Your task to perform on an android device: Go to battery settings Image 0: 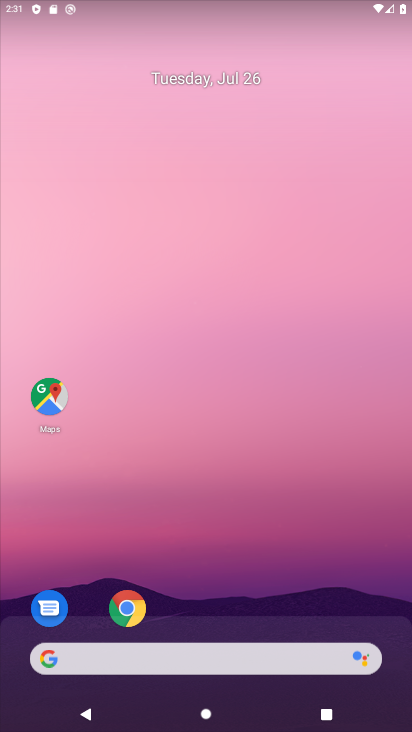
Step 0: drag from (222, 629) to (397, 97)
Your task to perform on an android device: Go to battery settings Image 1: 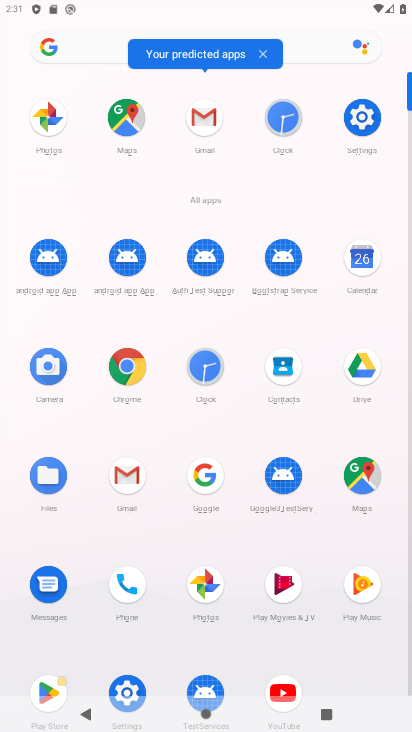
Step 1: click (129, 689)
Your task to perform on an android device: Go to battery settings Image 2: 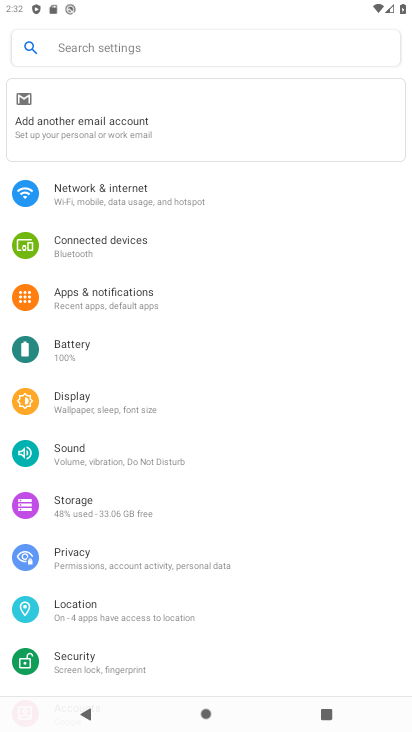
Step 2: click (106, 349)
Your task to perform on an android device: Go to battery settings Image 3: 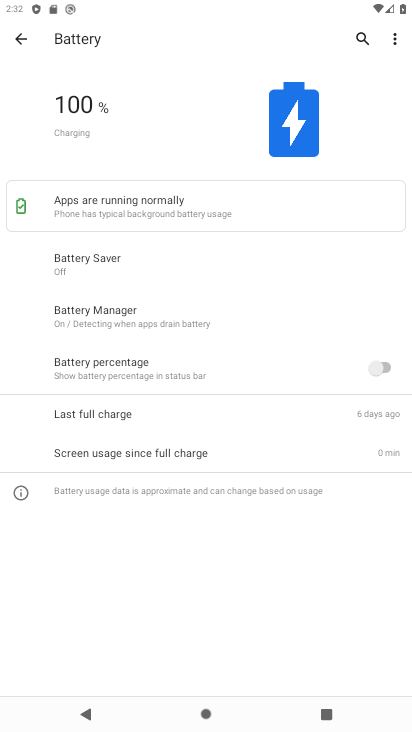
Step 3: task complete